Your task to perform on an android device: toggle show notifications on the lock screen Image 0: 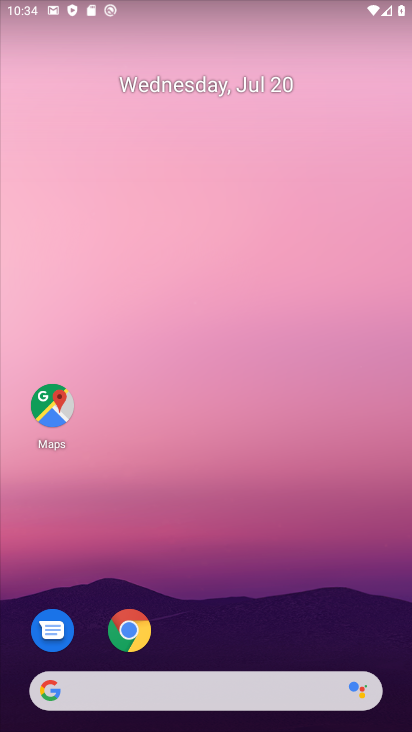
Step 0: drag from (241, 573) to (204, 95)
Your task to perform on an android device: toggle show notifications on the lock screen Image 1: 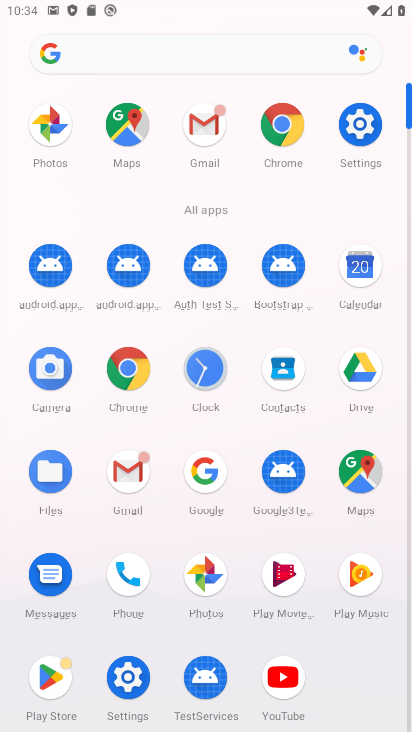
Step 1: click (356, 117)
Your task to perform on an android device: toggle show notifications on the lock screen Image 2: 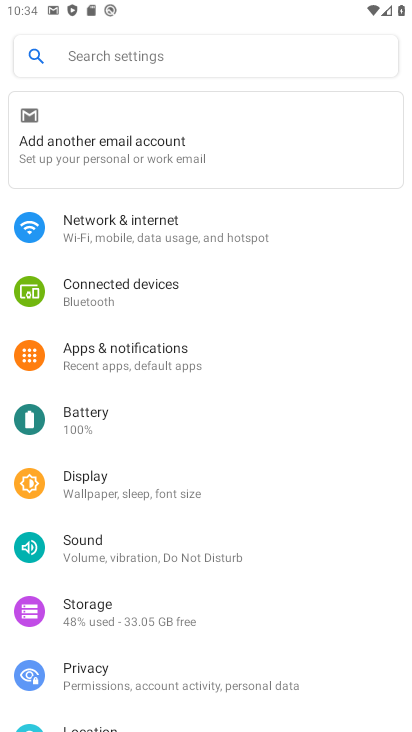
Step 2: click (147, 357)
Your task to perform on an android device: toggle show notifications on the lock screen Image 3: 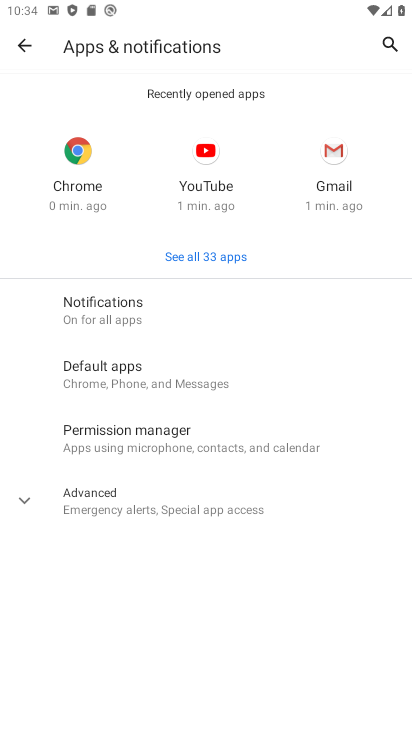
Step 3: click (108, 328)
Your task to perform on an android device: toggle show notifications on the lock screen Image 4: 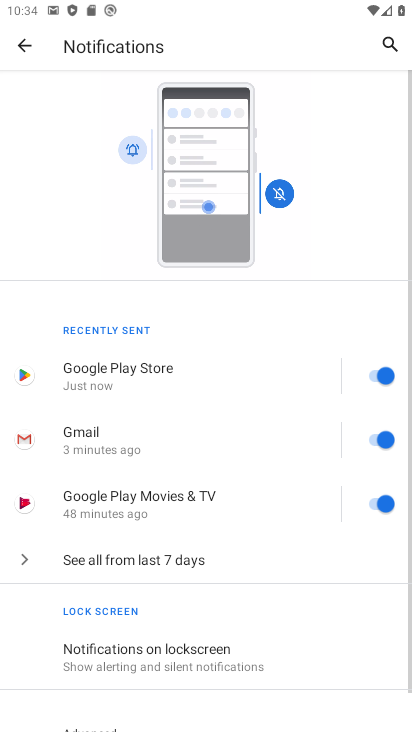
Step 4: click (139, 678)
Your task to perform on an android device: toggle show notifications on the lock screen Image 5: 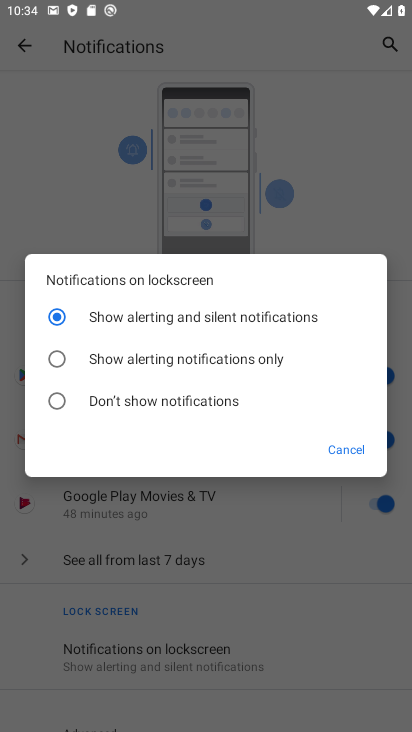
Step 5: click (53, 406)
Your task to perform on an android device: toggle show notifications on the lock screen Image 6: 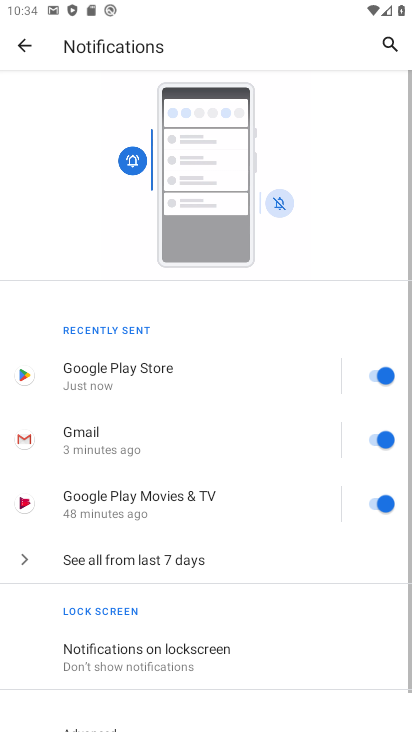
Step 6: task complete